Your task to perform on an android device: Search for seafood restaurants on Google Maps Image 0: 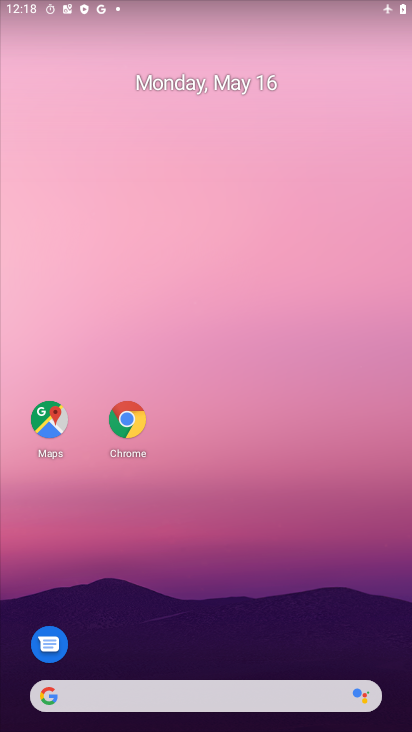
Step 0: drag from (222, 669) to (222, 624)
Your task to perform on an android device: Search for seafood restaurants on Google Maps Image 1: 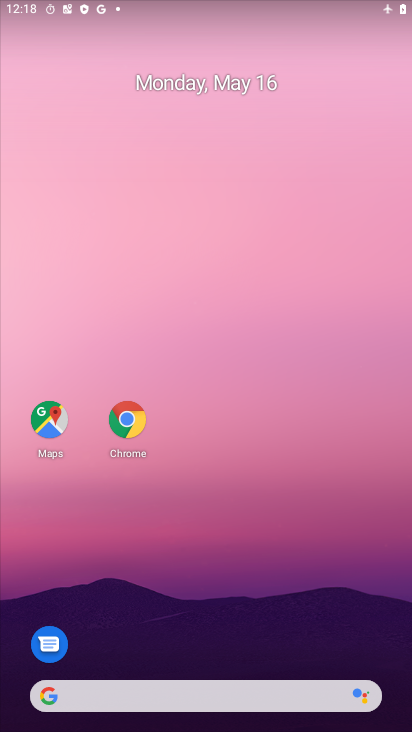
Step 1: drag from (202, 658) to (317, 144)
Your task to perform on an android device: Search for seafood restaurants on Google Maps Image 2: 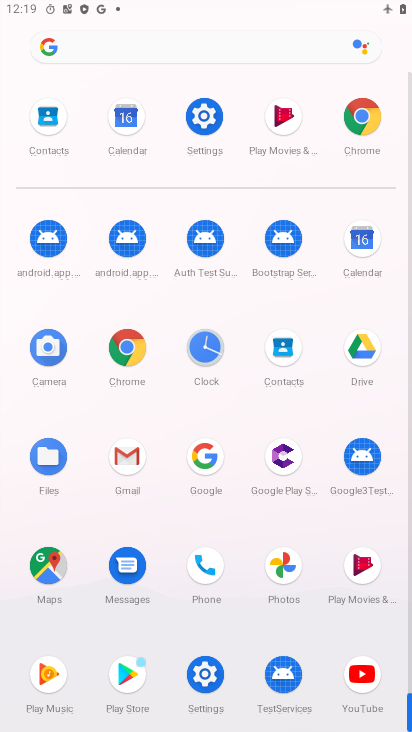
Step 2: click (48, 572)
Your task to perform on an android device: Search for seafood restaurants on Google Maps Image 3: 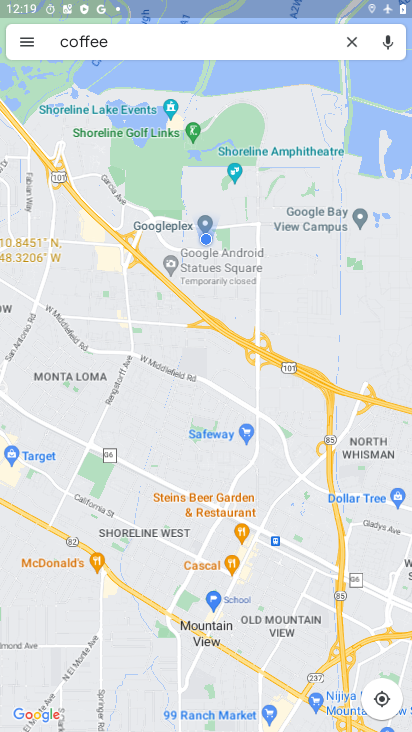
Step 3: click (345, 42)
Your task to perform on an android device: Search for seafood restaurants on Google Maps Image 4: 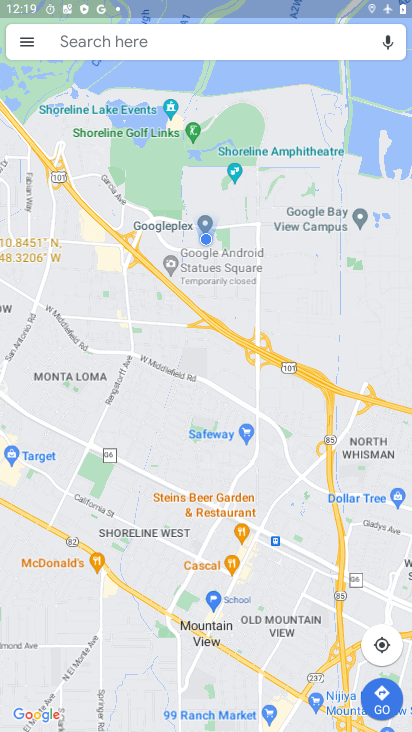
Step 4: click (77, 41)
Your task to perform on an android device: Search for seafood restaurants on Google Maps Image 5: 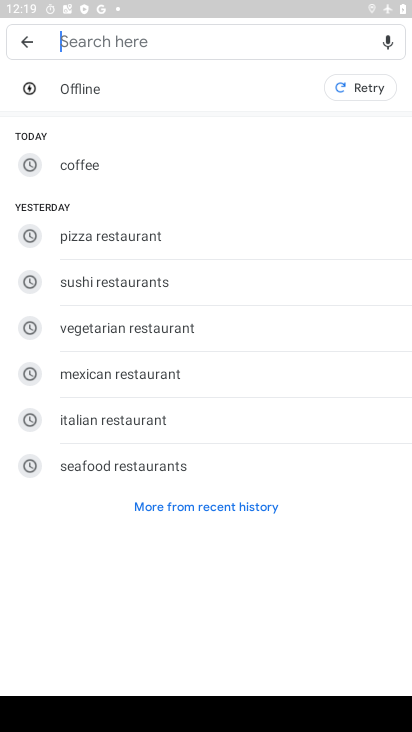
Step 5: click (98, 462)
Your task to perform on an android device: Search for seafood restaurants on Google Maps Image 6: 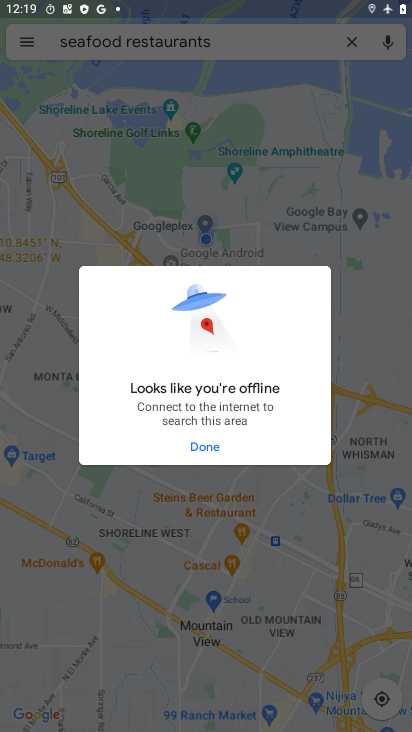
Step 6: click (204, 447)
Your task to perform on an android device: Search for seafood restaurants on Google Maps Image 7: 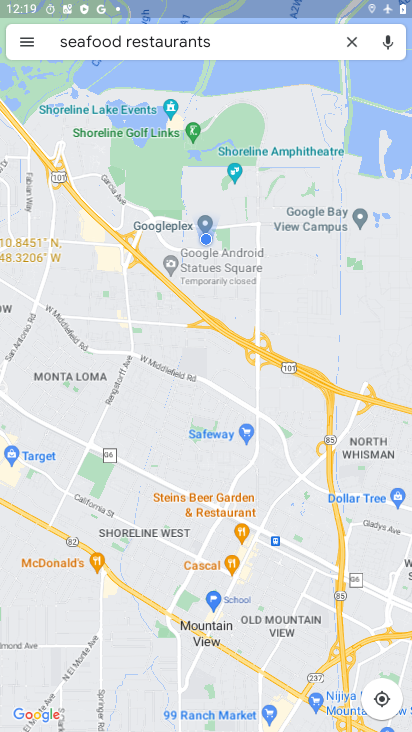
Step 7: task complete